Your task to perform on an android device: find snoozed emails in the gmail app Image 0: 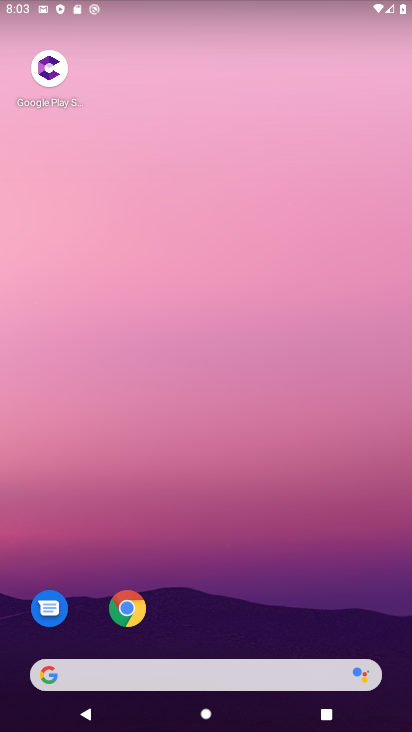
Step 0: drag from (194, 670) to (310, 126)
Your task to perform on an android device: find snoozed emails in the gmail app Image 1: 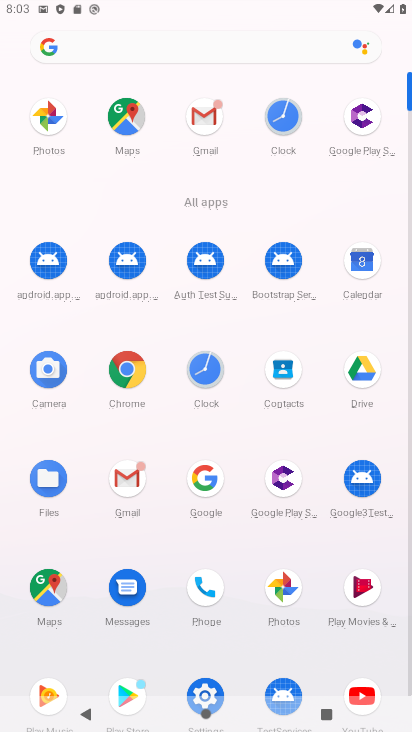
Step 1: click (206, 116)
Your task to perform on an android device: find snoozed emails in the gmail app Image 2: 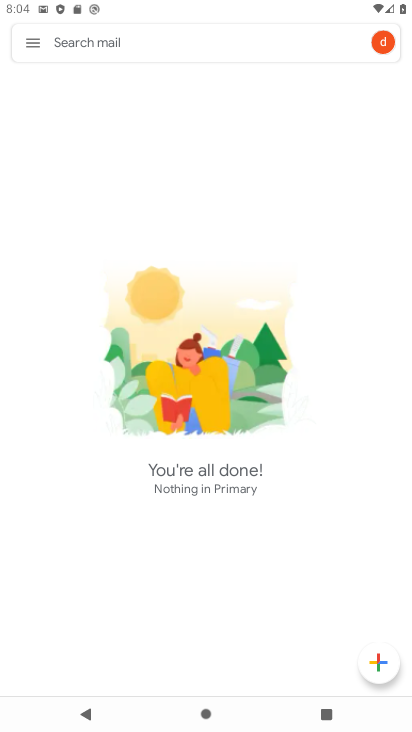
Step 2: click (33, 43)
Your task to perform on an android device: find snoozed emails in the gmail app Image 3: 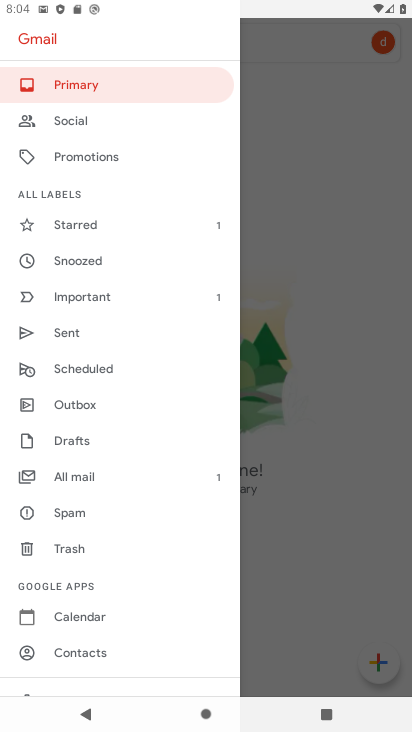
Step 3: click (101, 260)
Your task to perform on an android device: find snoozed emails in the gmail app Image 4: 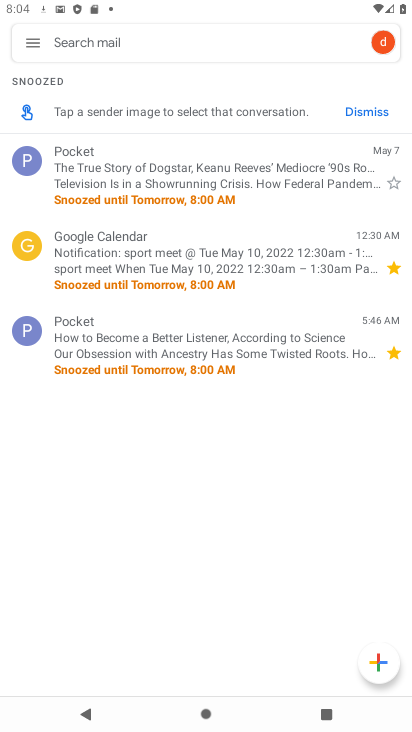
Step 4: task complete